Your task to perform on an android device: open a bookmark in the chrome app Image 0: 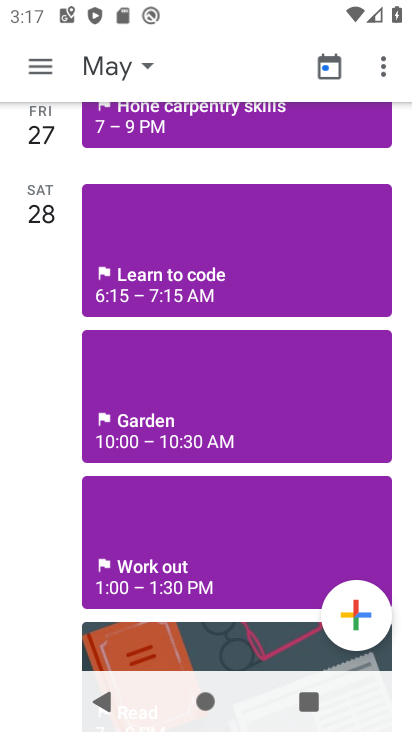
Step 0: press home button
Your task to perform on an android device: open a bookmark in the chrome app Image 1: 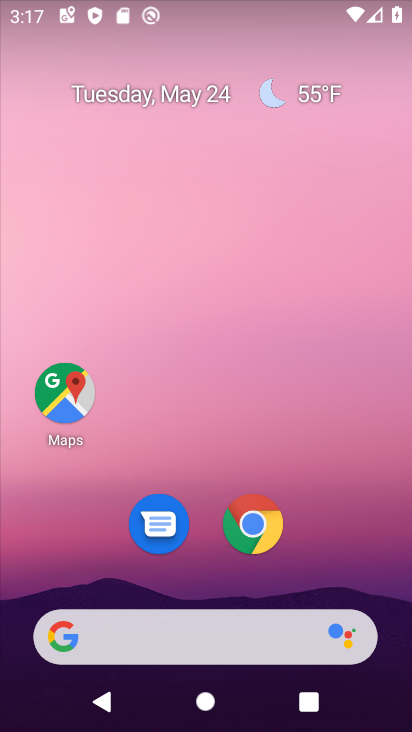
Step 1: click (264, 522)
Your task to perform on an android device: open a bookmark in the chrome app Image 2: 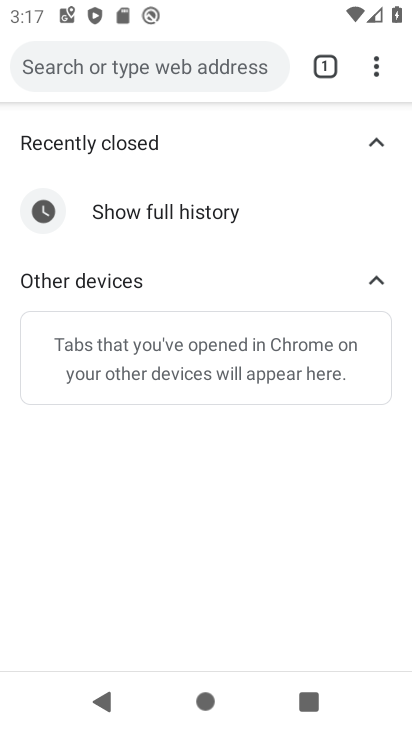
Step 2: click (370, 64)
Your task to perform on an android device: open a bookmark in the chrome app Image 3: 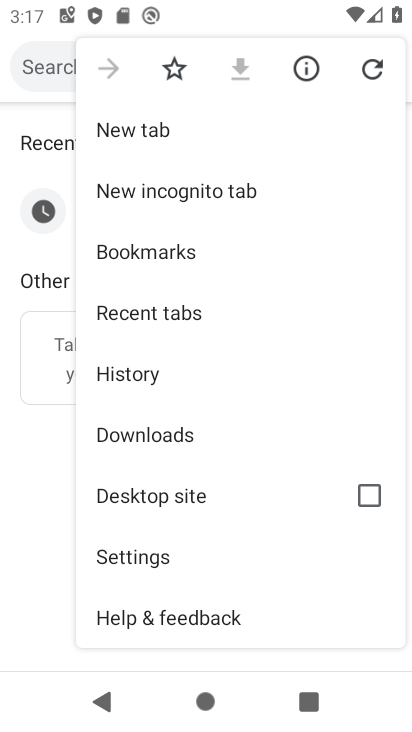
Step 3: click (181, 243)
Your task to perform on an android device: open a bookmark in the chrome app Image 4: 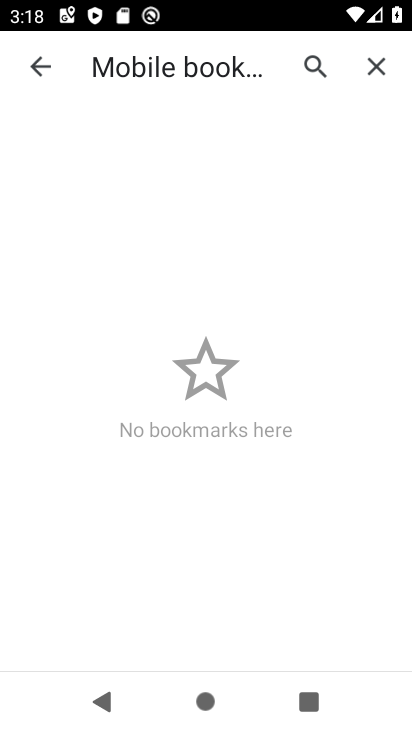
Step 4: task complete